Your task to perform on an android device: turn off location Image 0: 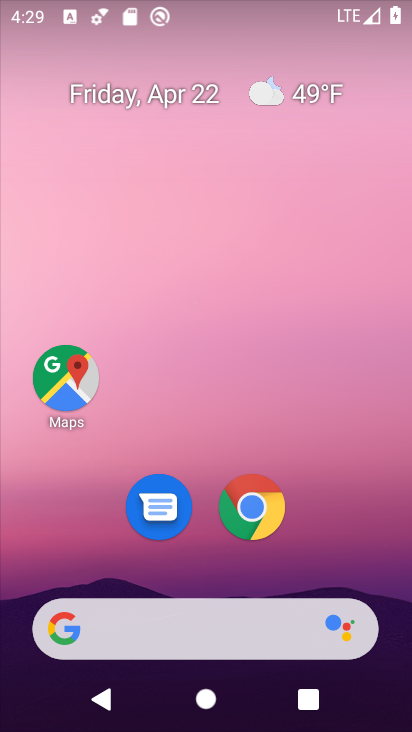
Step 0: drag from (363, 565) to (263, 86)
Your task to perform on an android device: turn off location Image 1: 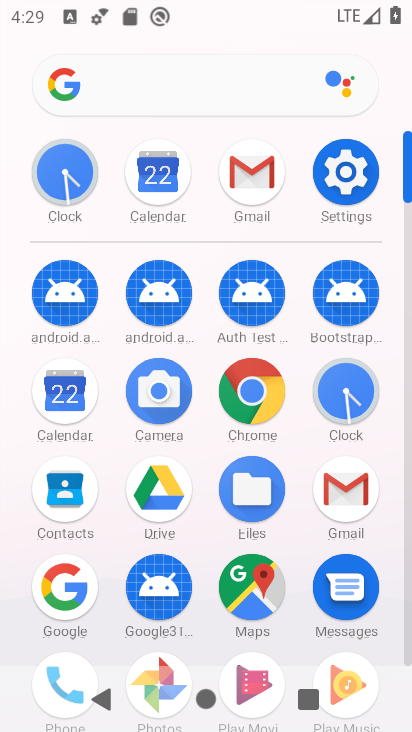
Step 1: click (405, 646)
Your task to perform on an android device: turn off location Image 2: 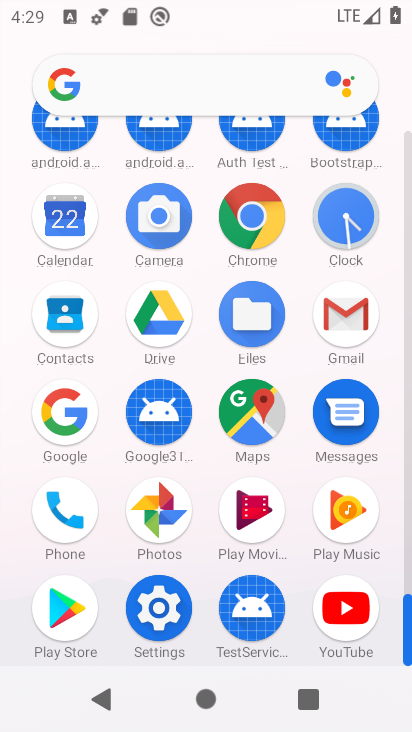
Step 2: click (155, 609)
Your task to perform on an android device: turn off location Image 3: 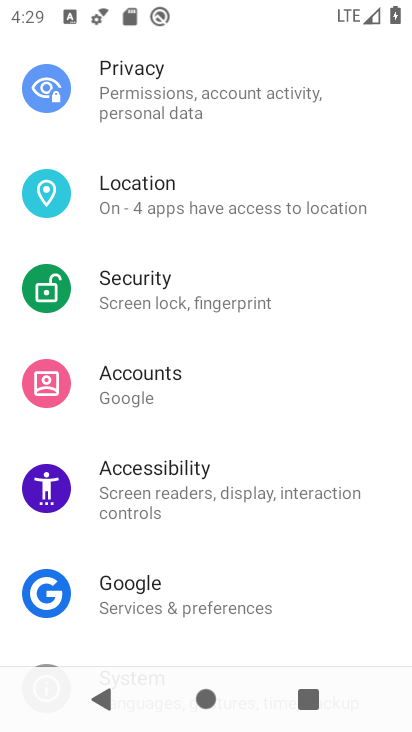
Step 3: click (144, 193)
Your task to perform on an android device: turn off location Image 4: 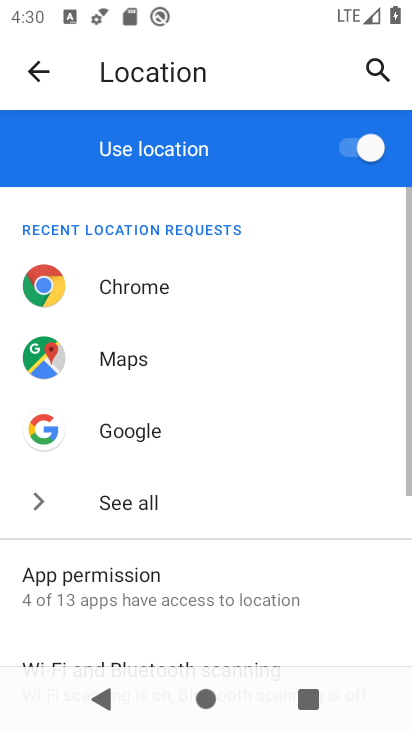
Step 4: click (341, 139)
Your task to perform on an android device: turn off location Image 5: 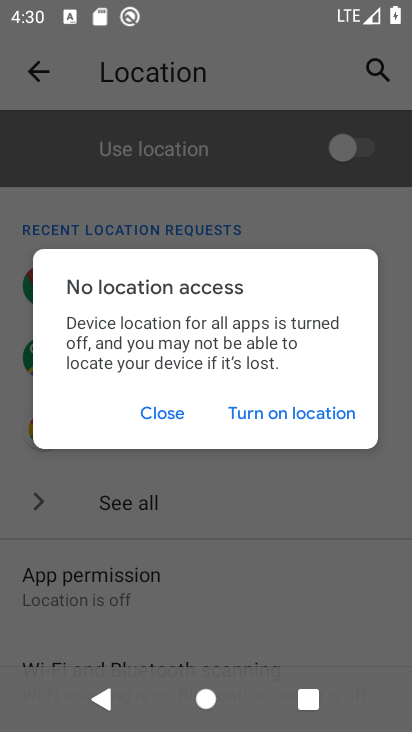
Step 5: task complete